Your task to perform on an android device: Open Google Chrome Image 0: 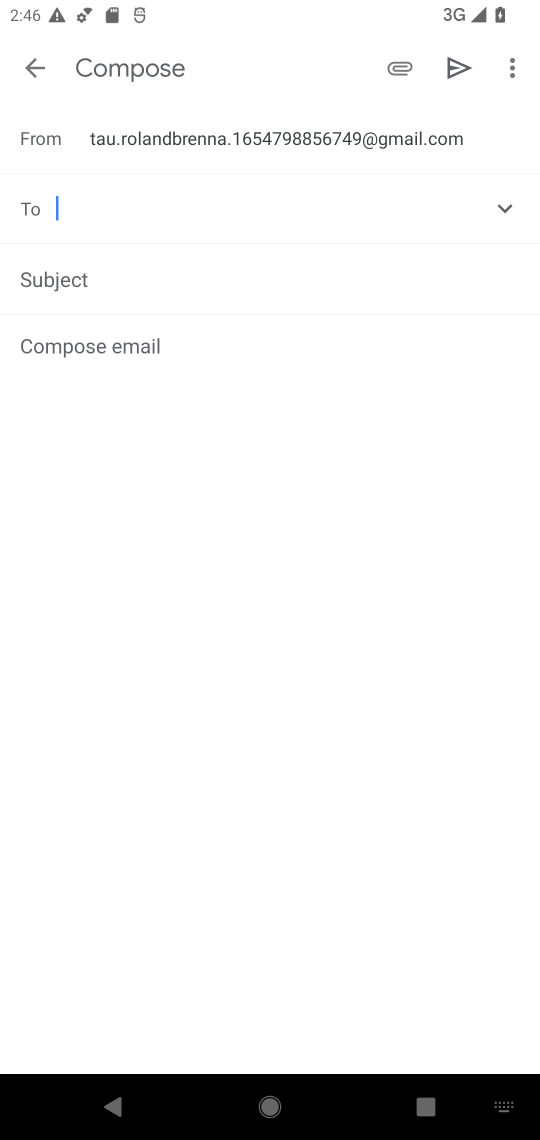
Step 0: press home button
Your task to perform on an android device: Open Google Chrome Image 1: 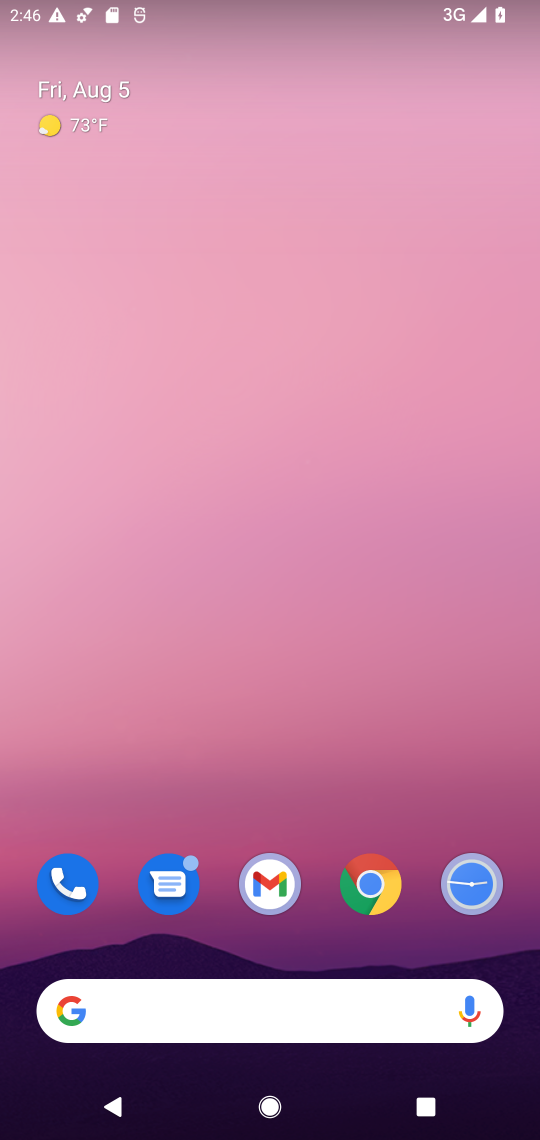
Step 1: drag from (430, 857) to (272, 100)
Your task to perform on an android device: Open Google Chrome Image 2: 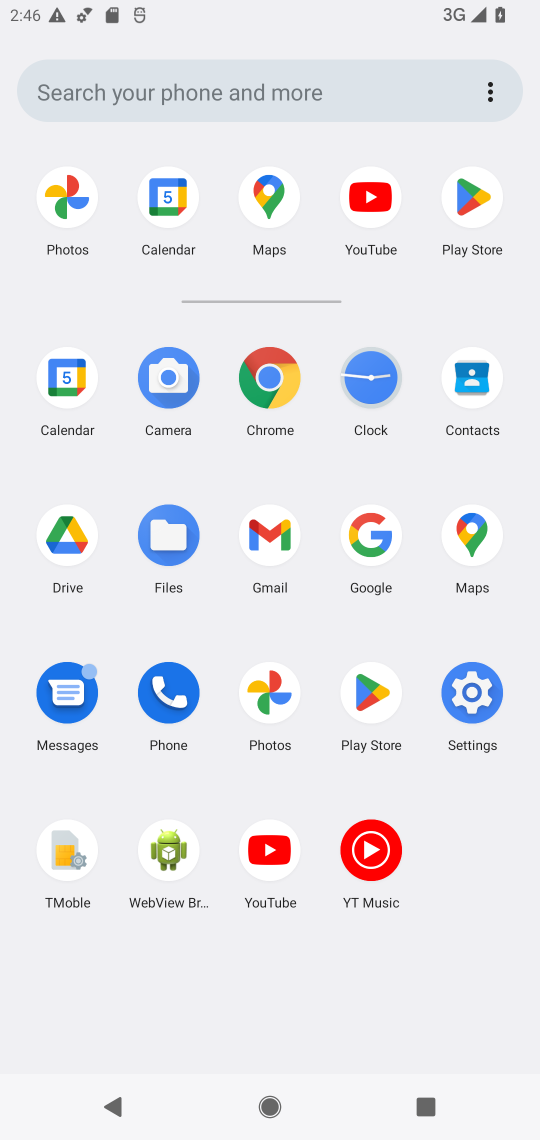
Step 2: click (277, 403)
Your task to perform on an android device: Open Google Chrome Image 3: 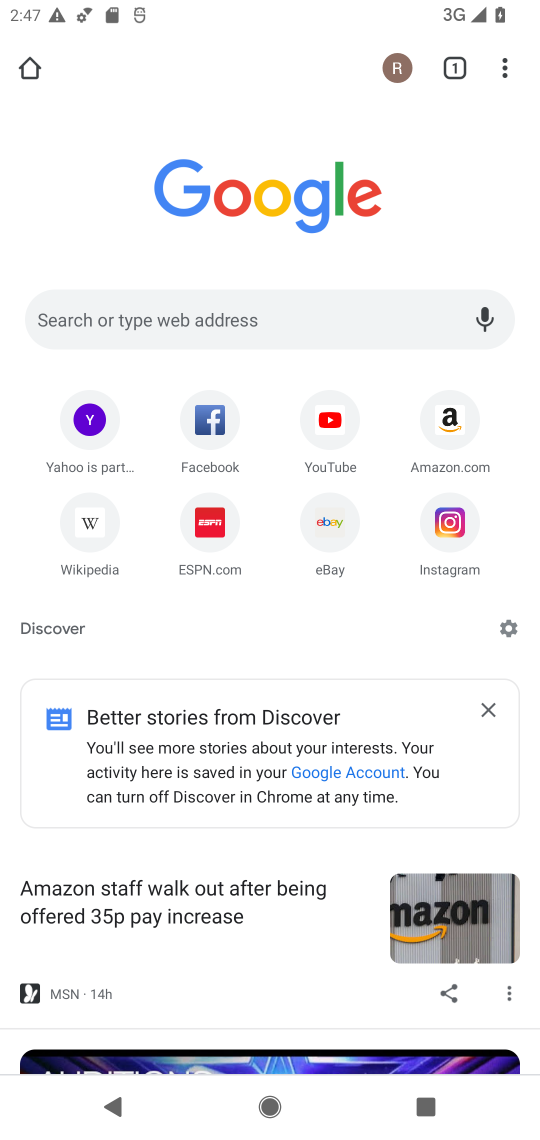
Step 3: task complete